Your task to perform on an android device: Go to wifi settings Image 0: 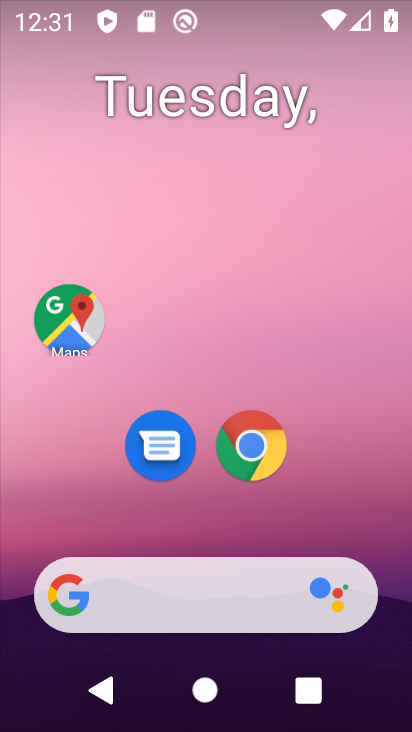
Step 0: drag from (189, 522) to (242, 177)
Your task to perform on an android device: Go to wifi settings Image 1: 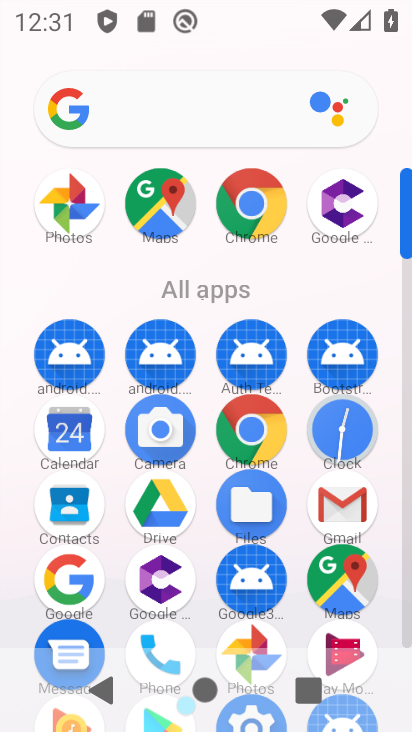
Step 1: drag from (299, 516) to (308, 299)
Your task to perform on an android device: Go to wifi settings Image 2: 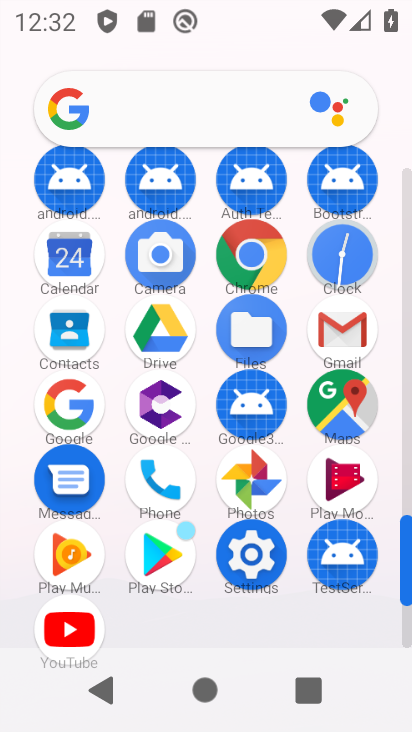
Step 2: click (251, 553)
Your task to perform on an android device: Go to wifi settings Image 3: 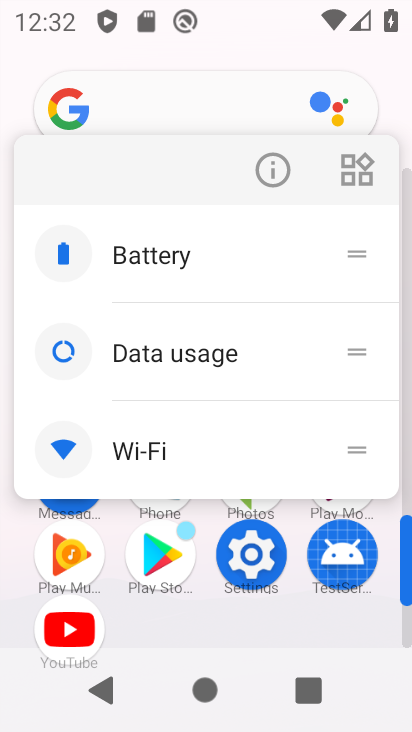
Step 3: click (211, 460)
Your task to perform on an android device: Go to wifi settings Image 4: 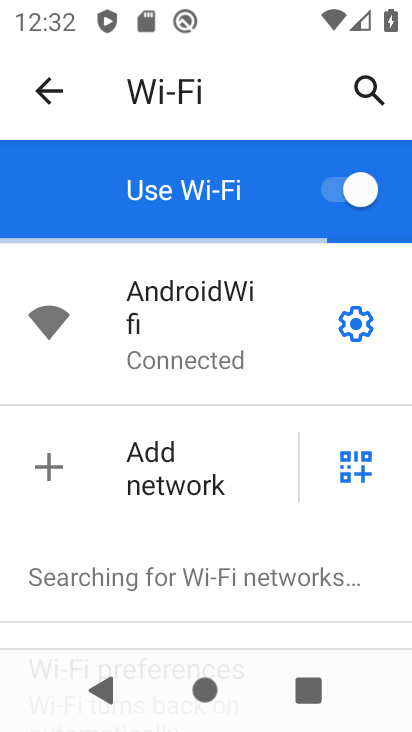
Step 4: task complete